Your task to perform on an android device: change the clock display to digital Image 0: 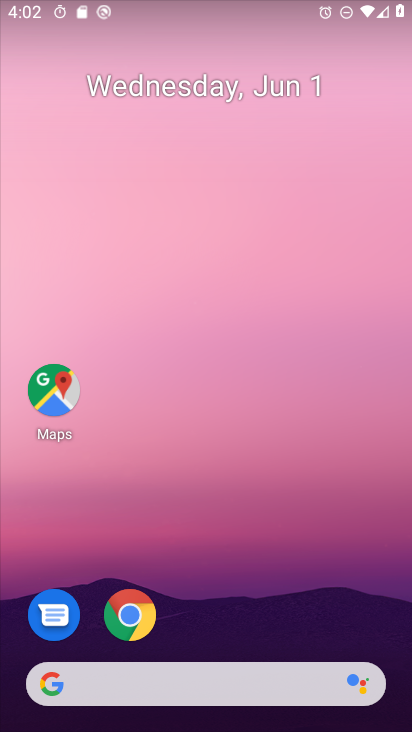
Step 0: drag from (277, 686) to (238, 79)
Your task to perform on an android device: change the clock display to digital Image 1: 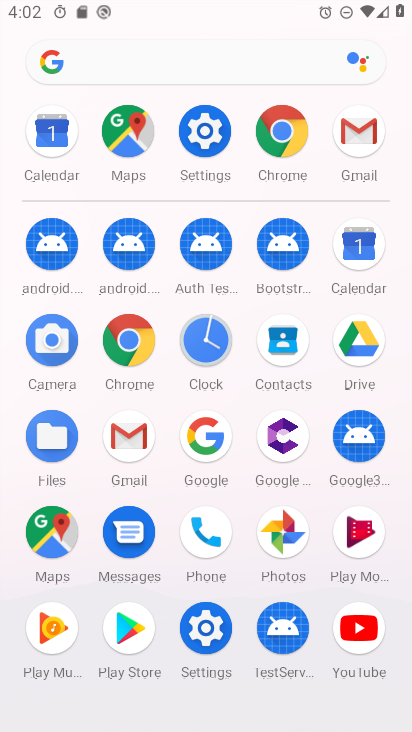
Step 1: click (191, 355)
Your task to perform on an android device: change the clock display to digital Image 2: 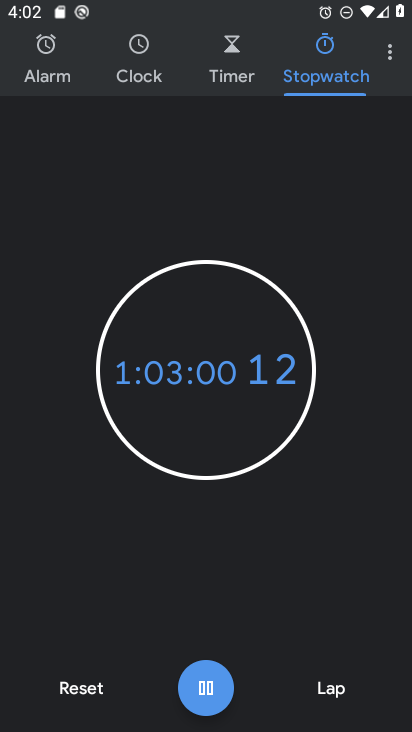
Step 2: click (380, 48)
Your task to perform on an android device: change the clock display to digital Image 3: 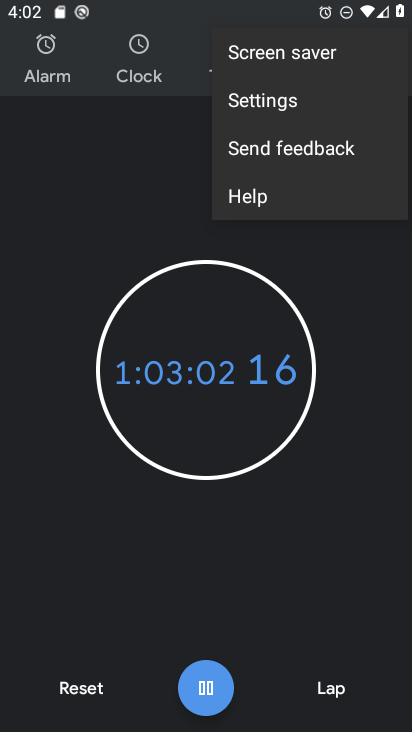
Step 3: click (294, 107)
Your task to perform on an android device: change the clock display to digital Image 4: 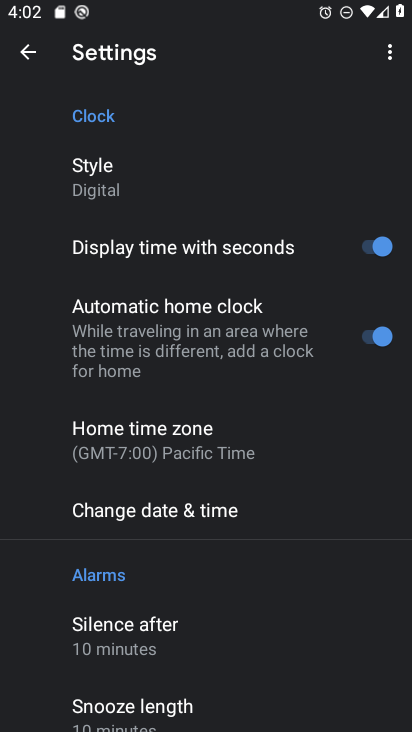
Step 4: task complete